Your task to perform on an android device: change text size in settings app Image 0: 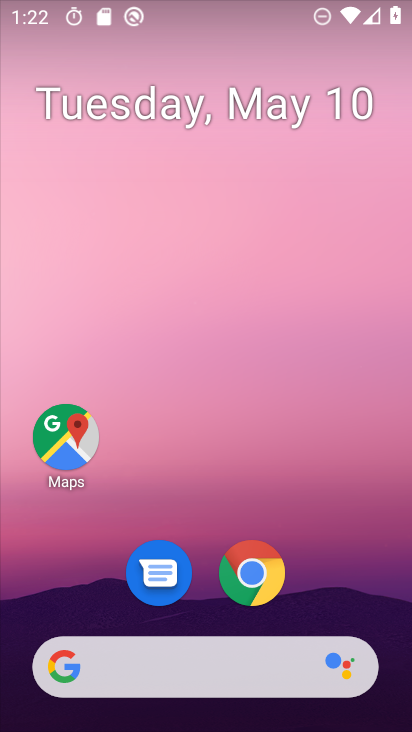
Step 0: drag from (334, 508) to (291, 179)
Your task to perform on an android device: change text size in settings app Image 1: 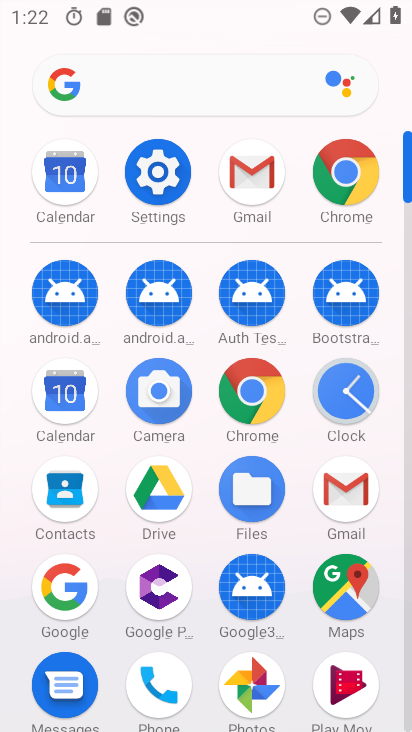
Step 1: click (171, 177)
Your task to perform on an android device: change text size in settings app Image 2: 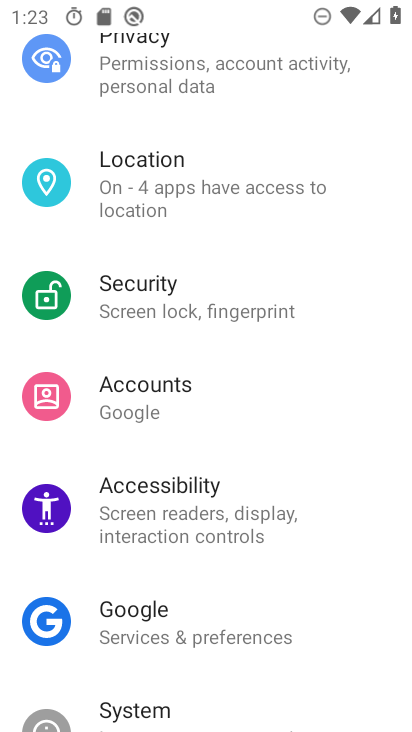
Step 2: drag from (276, 582) to (290, 248)
Your task to perform on an android device: change text size in settings app Image 3: 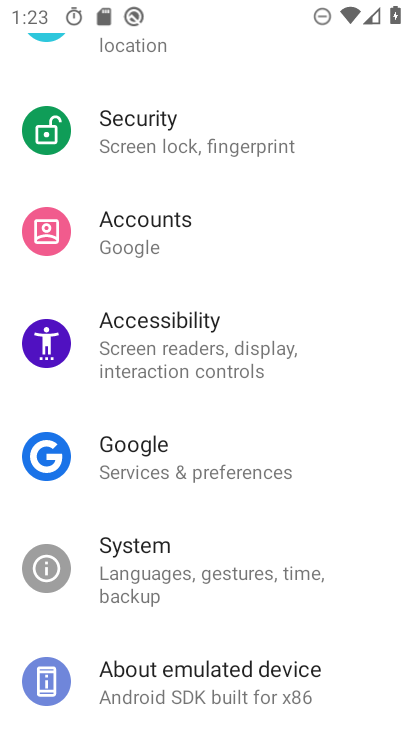
Step 3: drag from (306, 549) to (358, 241)
Your task to perform on an android device: change text size in settings app Image 4: 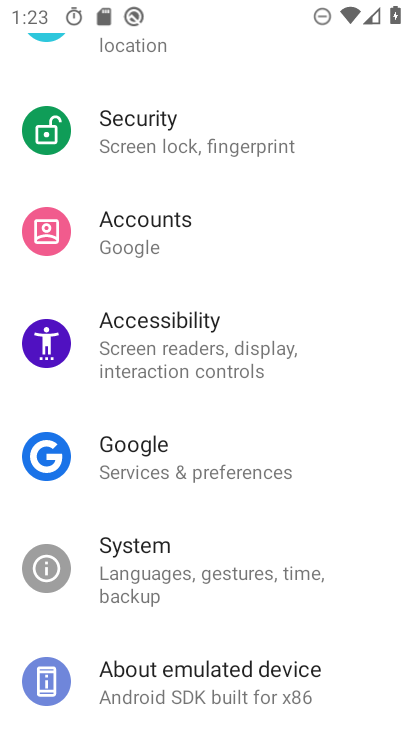
Step 4: drag from (287, 555) to (296, 272)
Your task to perform on an android device: change text size in settings app Image 5: 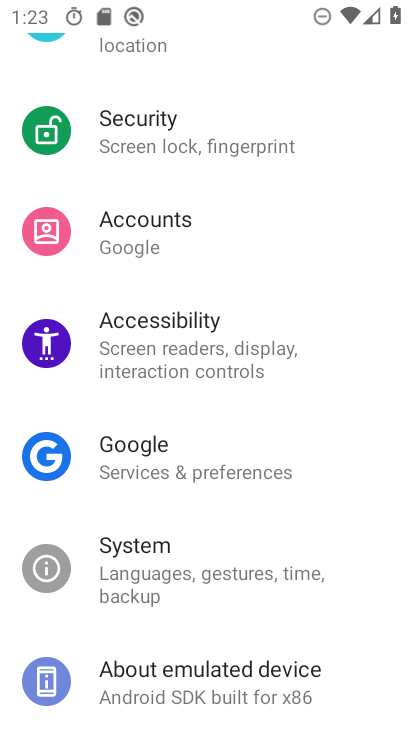
Step 5: drag from (294, 272) to (268, 584)
Your task to perform on an android device: change text size in settings app Image 6: 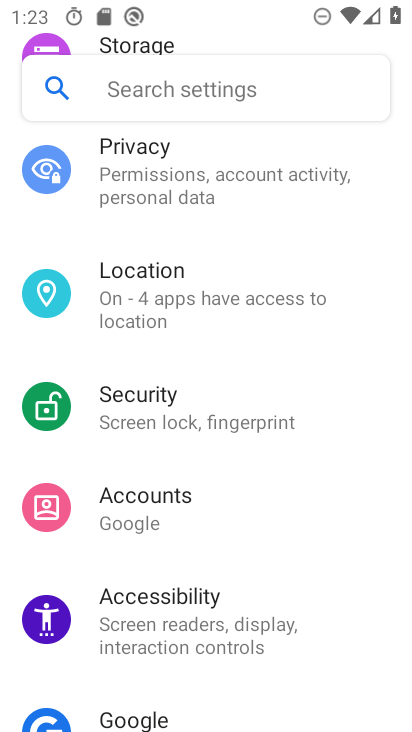
Step 6: drag from (201, 291) to (181, 621)
Your task to perform on an android device: change text size in settings app Image 7: 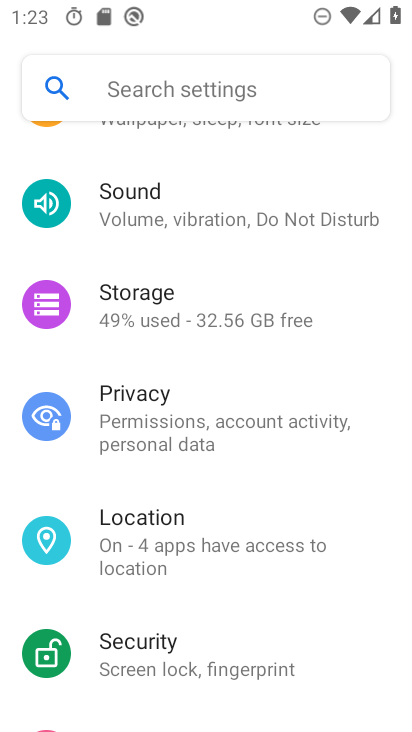
Step 7: drag from (146, 296) to (190, 630)
Your task to perform on an android device: change text size in settings app Image 8: 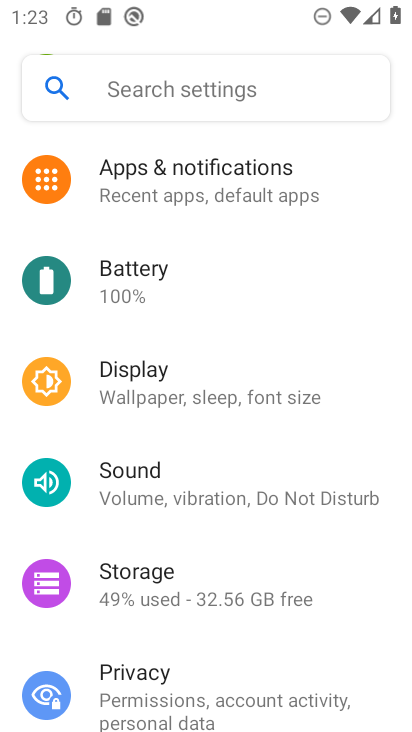
Step 8: drag from (187, 317) to (195, 603)
Your task to perform on an android device: change text size in settings app Image 9: 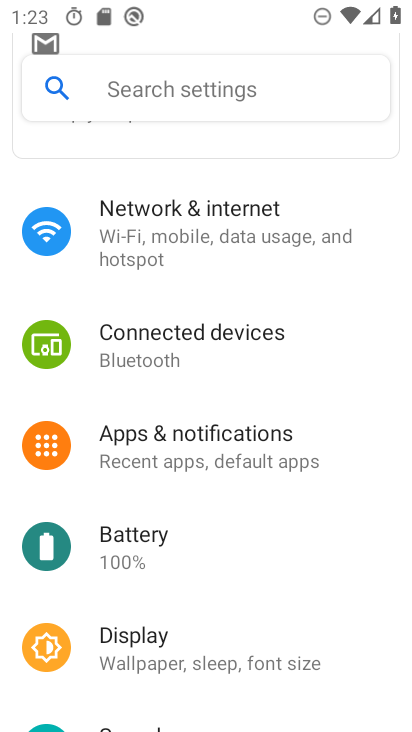
Step 9: drag from (213, 321) to (227, 514)
Your task to perform on an android device: change text size in settings app Image 10: 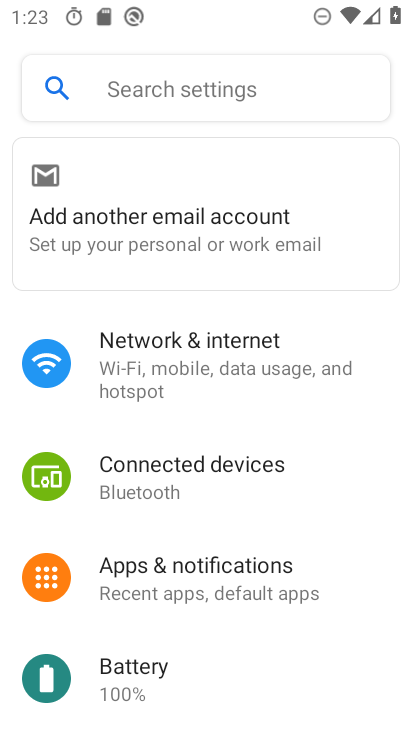
Step 10: drag from (249, 621) to (247, 334)
Your task to perform on an android device: change text size in settings app Image 11: 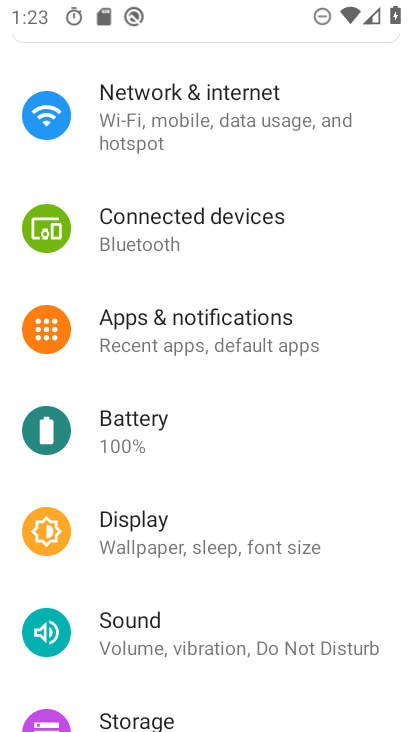
Step 11: click (230, 527)
Your task to perform on an android device: change text size in settings app Image 12: 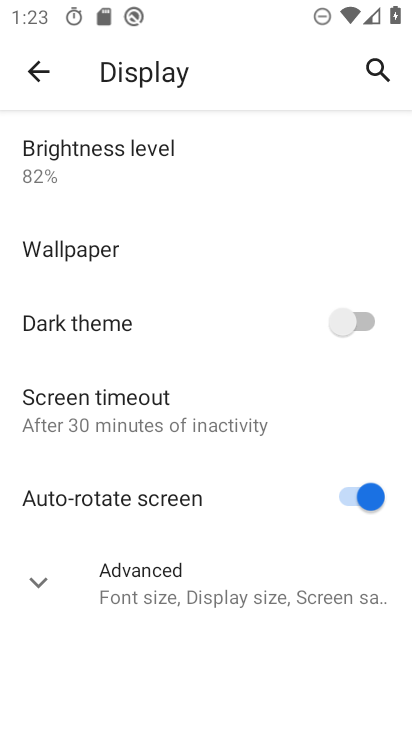
Step 12: click (237, 563)
Your task to perform on an android device: change text size in settings app Image 13: 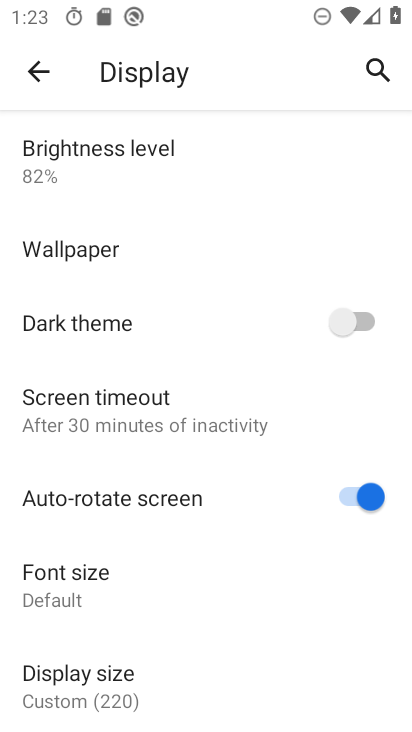
Step 13: click (96, 589)
Your task to perform on an android device: change text size in settings app Image 14: 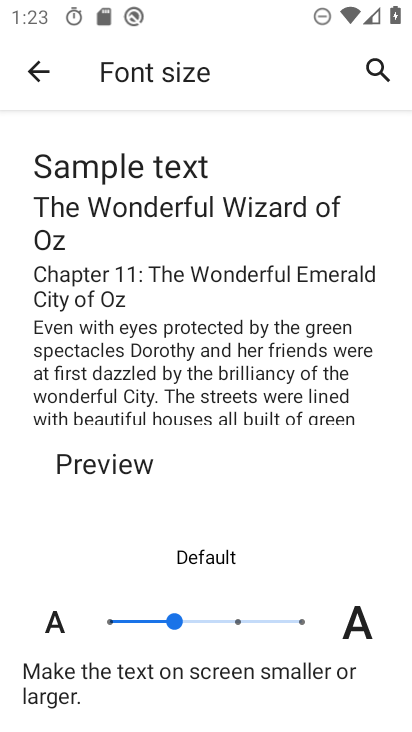
Step 14: click (188, 612)
Your task to perform on an android device: change text size in settings app Image 15: 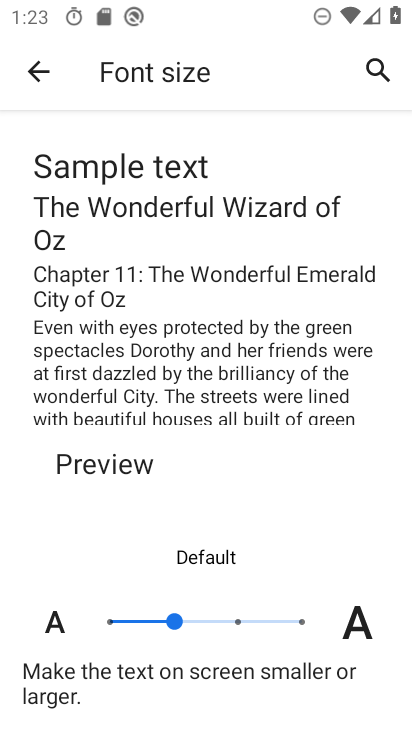
Step 15: click (210, 627)
Your task to perform on an android device: change text size in settings app Image 16: 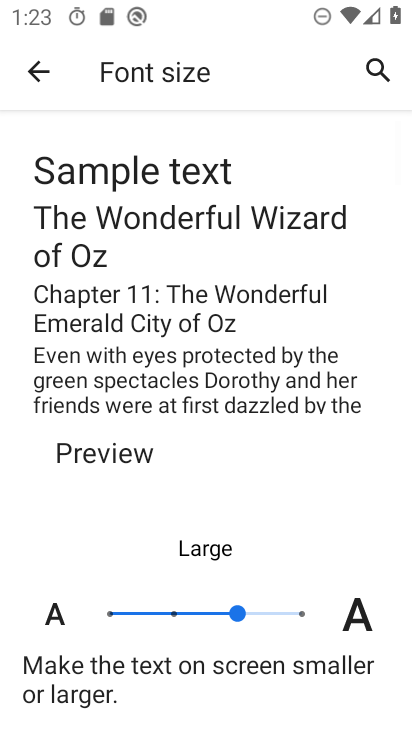
Step 16: task complete